Your task to perform on an android device: change timer sound Image 0: 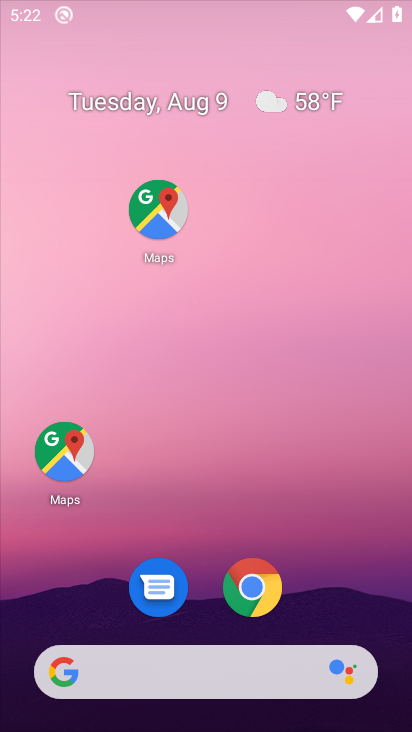
Step 0: drag from (360, 522) to (225, 210)
Your task to perform on an android device: change timer sound Image 1: 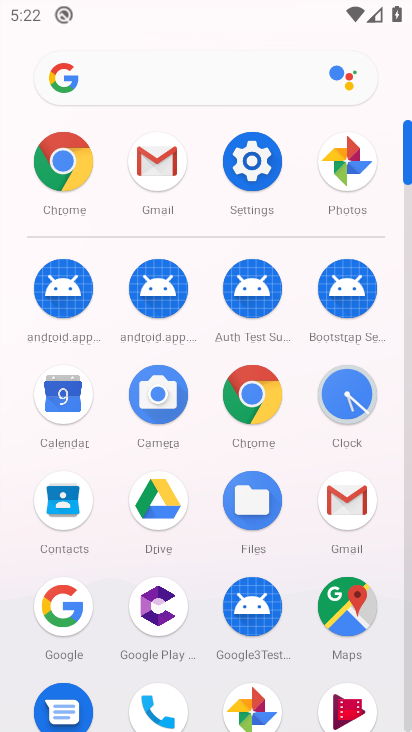
Step 1: click (361, 404)
Your task to perform on an android device: change timer sound Image 2: 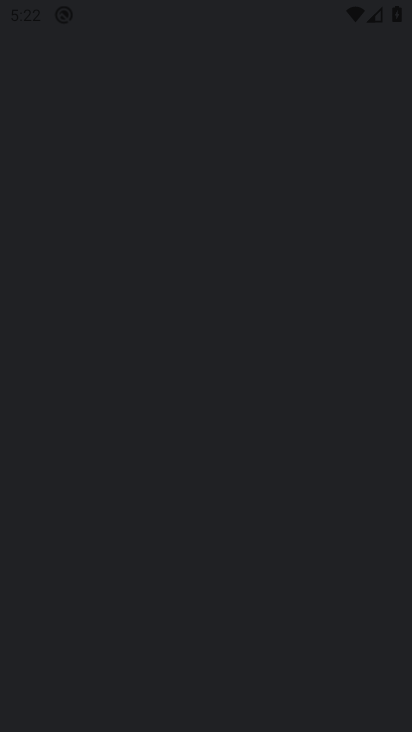
Step 2: click (362, 398)
Your task to perform on an android device: change timer sound Image 3: 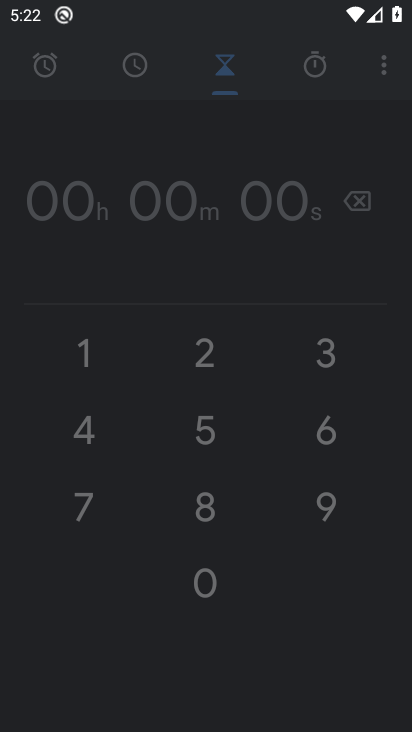
Step 3: click (363, 397)
Your task to perform on an android device: change timer sound Image 4: 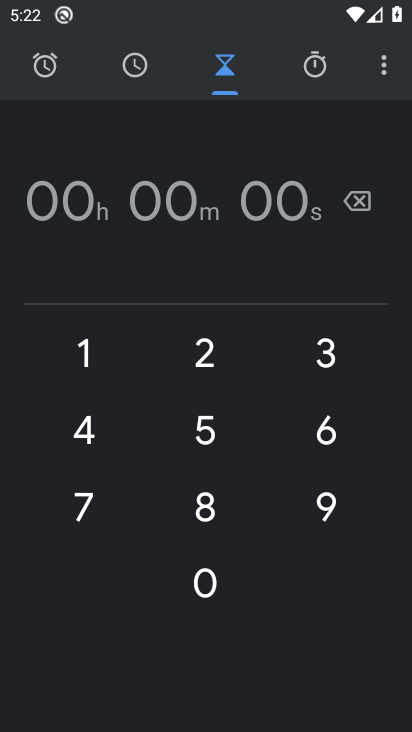
Step 4: click (370, 391)
Your task to perform on an android device: change timer sound Image 5: 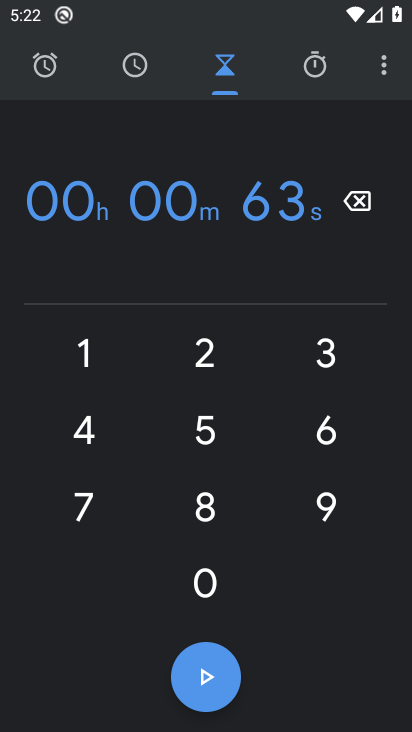
Step 5: click (386, 66)
Your task to perform on an android device: change timer sound Image 6: 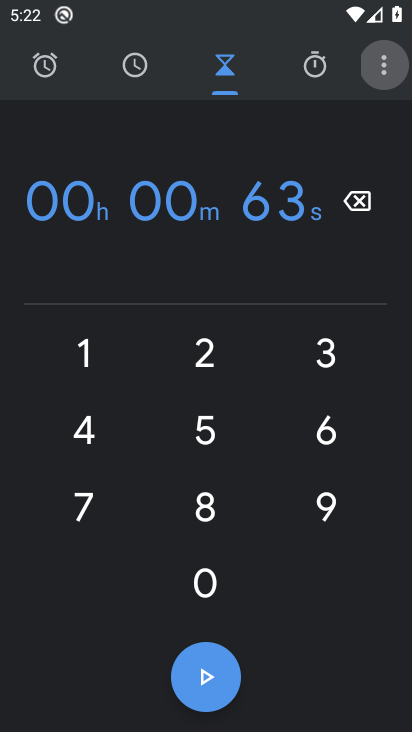
Step 6: click (388, 63)
Your task to perform on an android device: change timer sound Image 7: 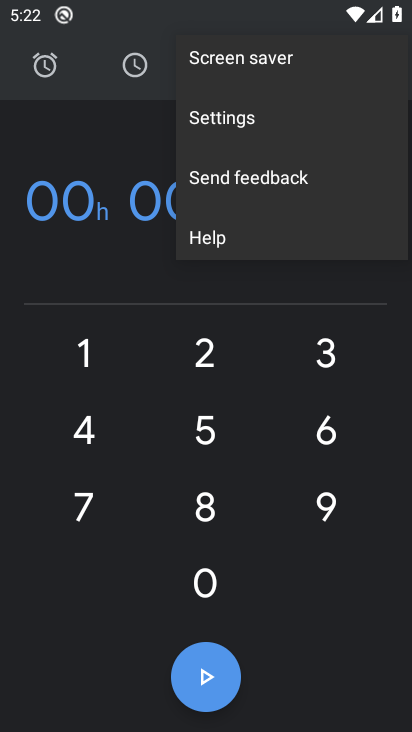
Step 7: click (388, 63)
Your task to perform on an android device: change timer sound Image 8: 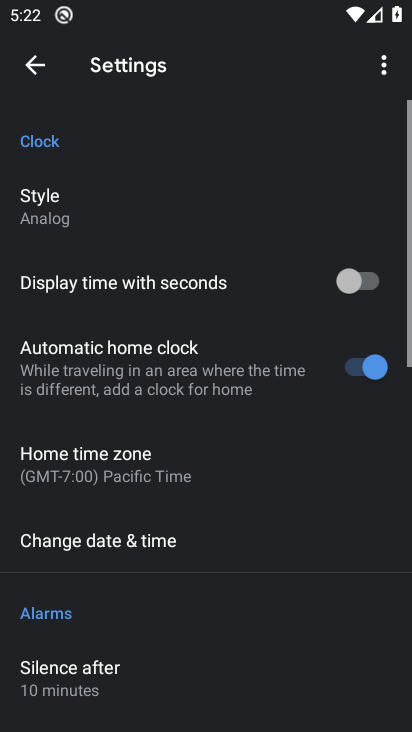
Step 8: click (239, 114)
Your task to perform on an android device: change timer sound Image 9: 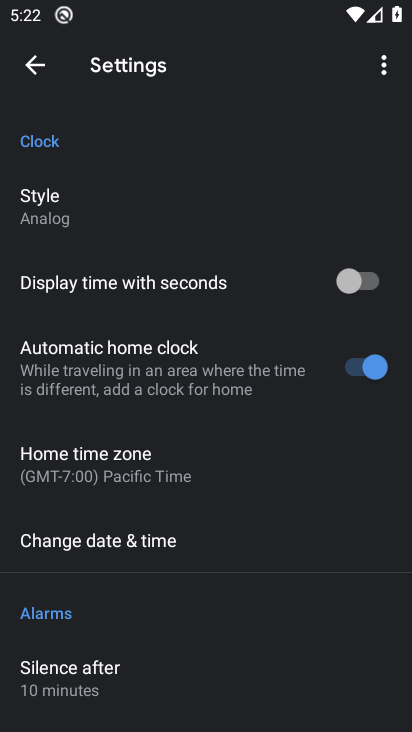
Step 9: drag from (114, 514) to (49, 236)
Your task to perform on an android device: change timer sound Image 10: 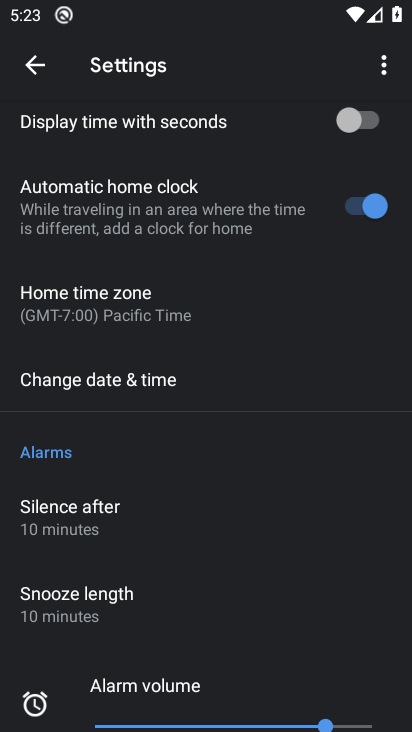
Step 10: drag from (92, 538) to (24, 184)
Your task to perform on an android device: change timer sound Image 11: 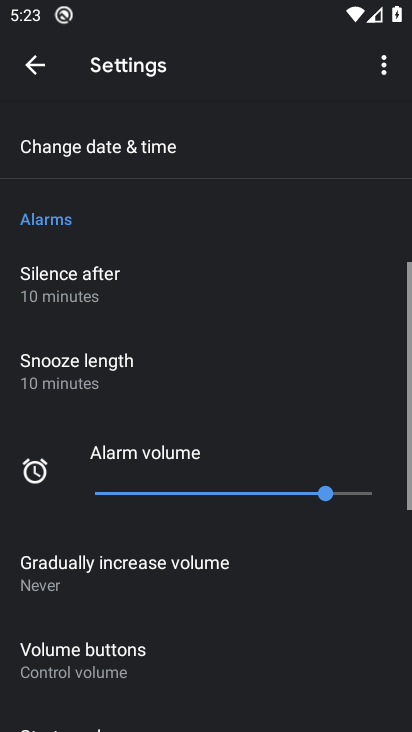
Step 11: drag from (88, 456) to (88, 128)
Your task to perform on an android device: change timer sound Image 12: 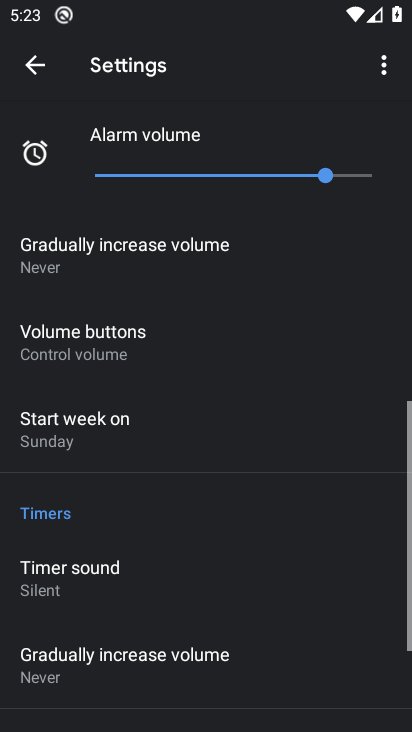
Step 12: drag from (116, 324) to (116, 152)
Your task to perform on an android device: change timer sound Image 13: 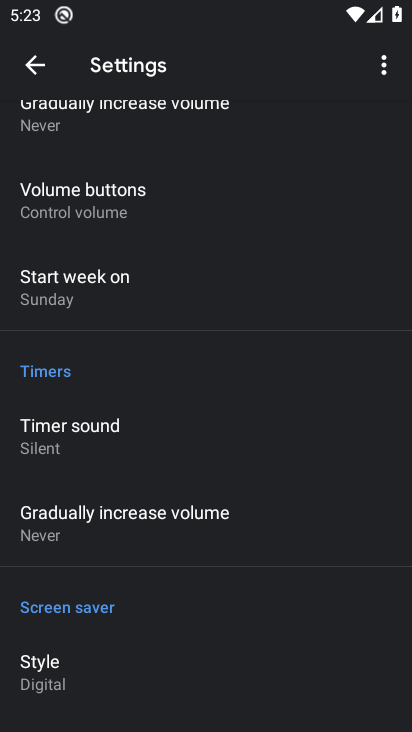
Step 13: click (50, 437)
Your task to perform on an android device: change timer sound Image 14: 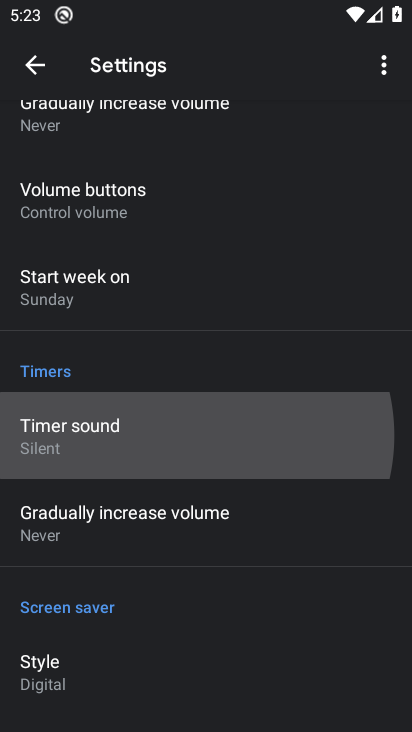
Step 14: click (50, 437)
Your task to perform on an android device: change timer sound Image 15: 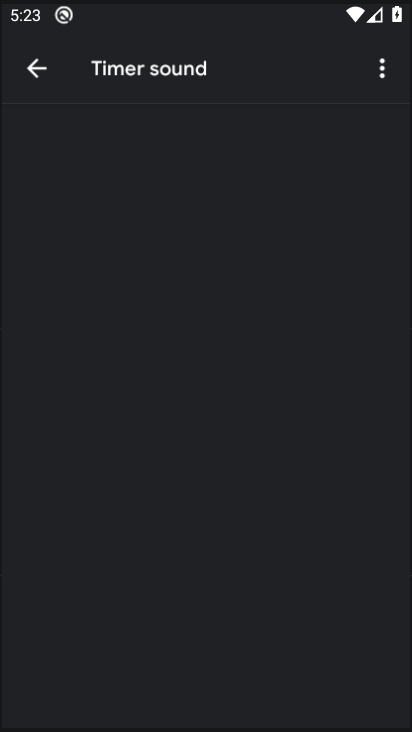
Step 15: click (50, 437)
Your task to perform on an android device: change timer sound Image 16: 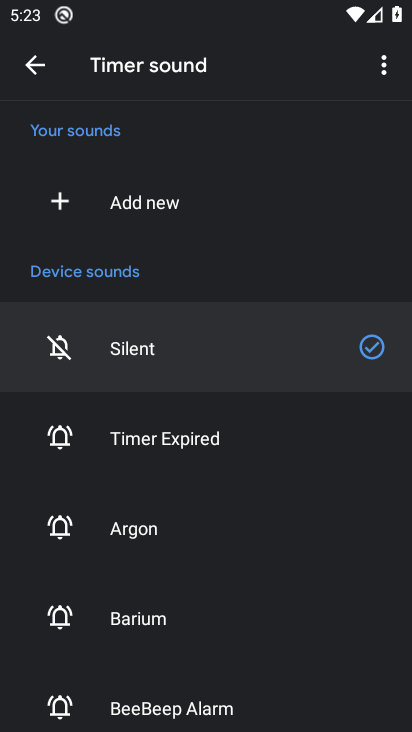
Step 16: click (66, 528)
Your task to perform on an android device: change timer sound Image 17: 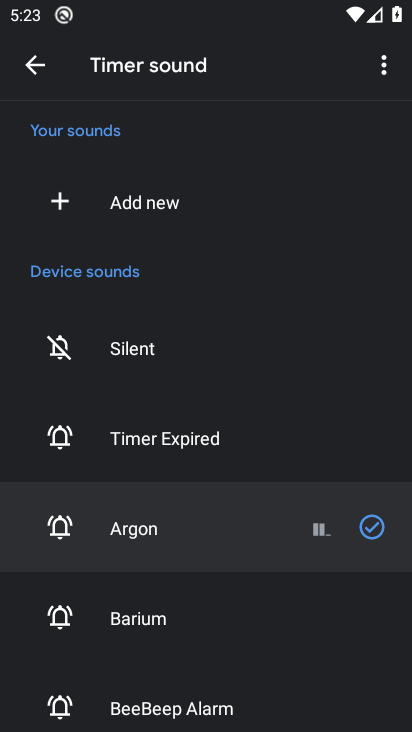
Step 17: task complete